Your task to perform on an android device: change the clock display to show seconds Image 0: 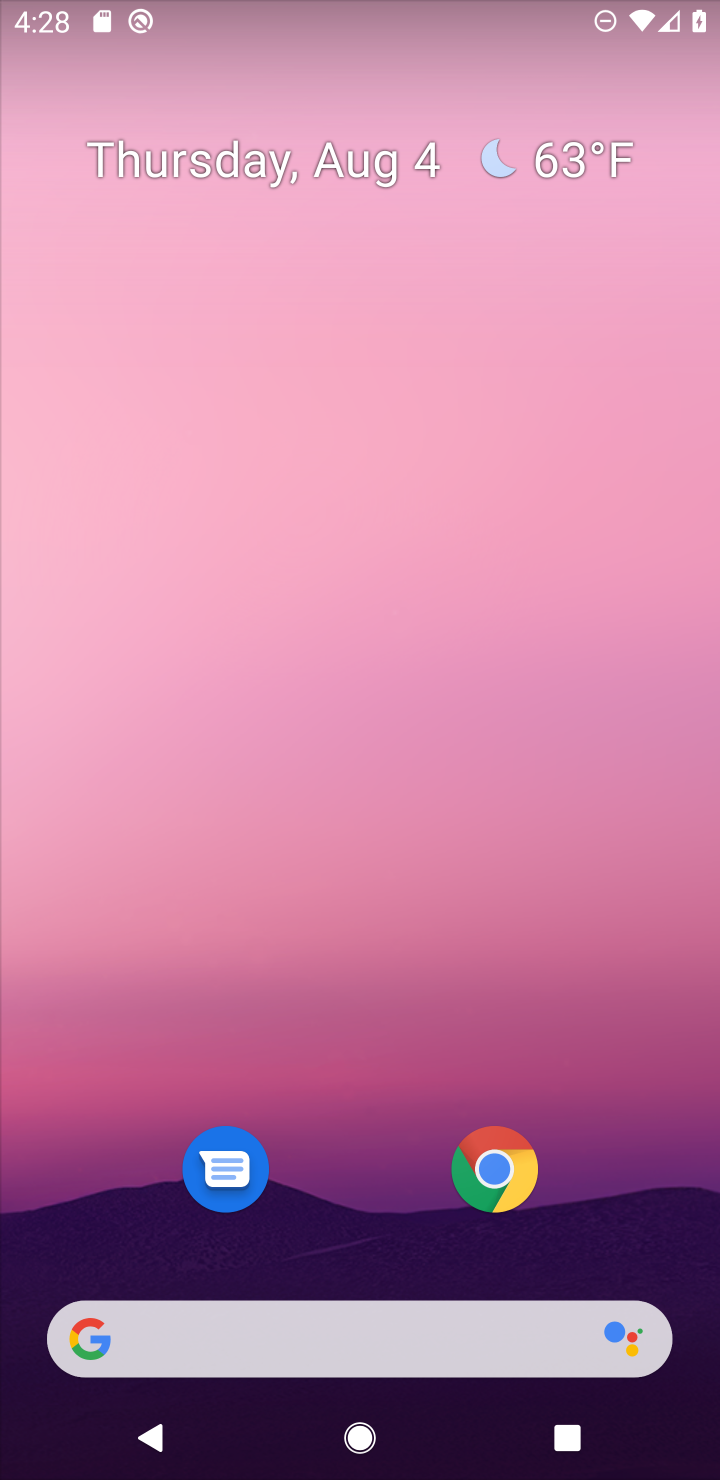
Step 0: drag from (348, 1258) to (271, 262)
Your task to perform on an android device: change the clock display to show seconds Image 1: 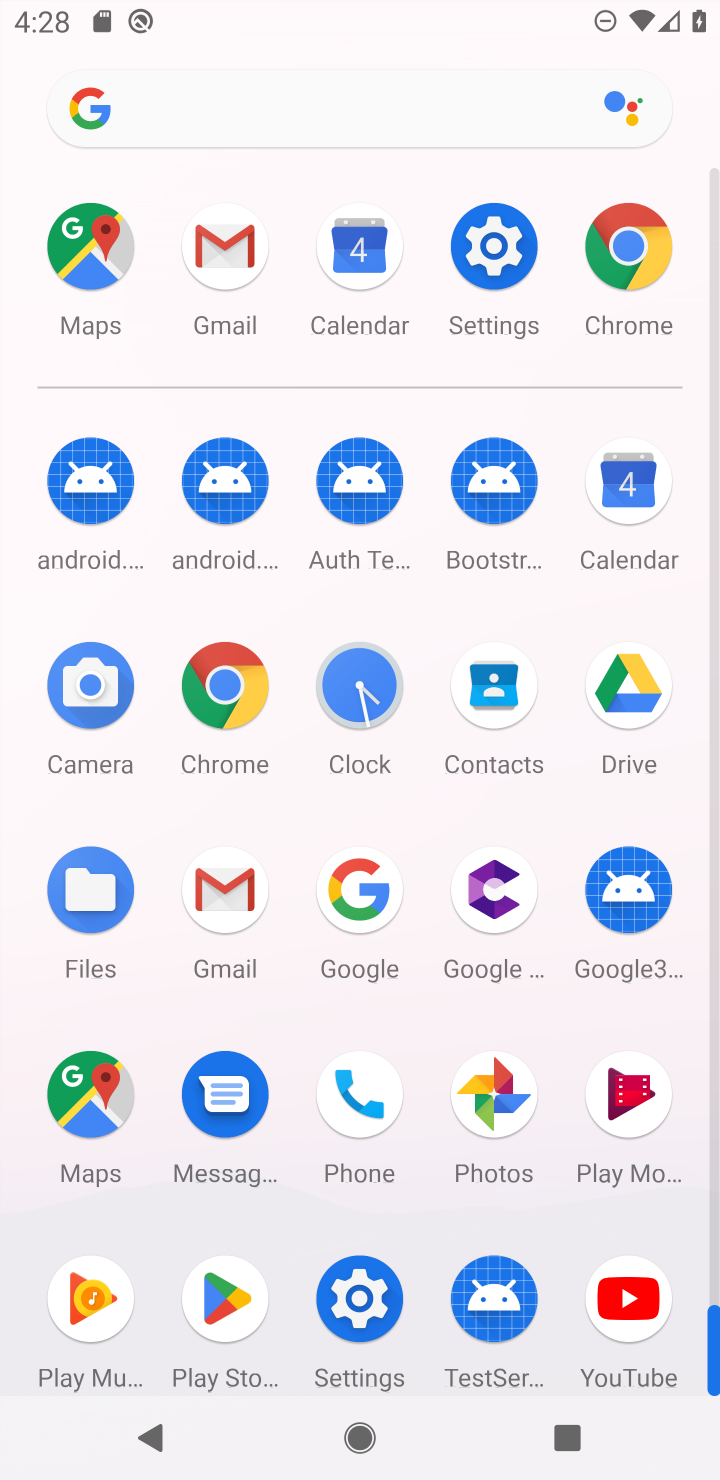
Step 1: click (351, 711)
Your task to perform on an android device: change the clock display to show seconds Image 2: 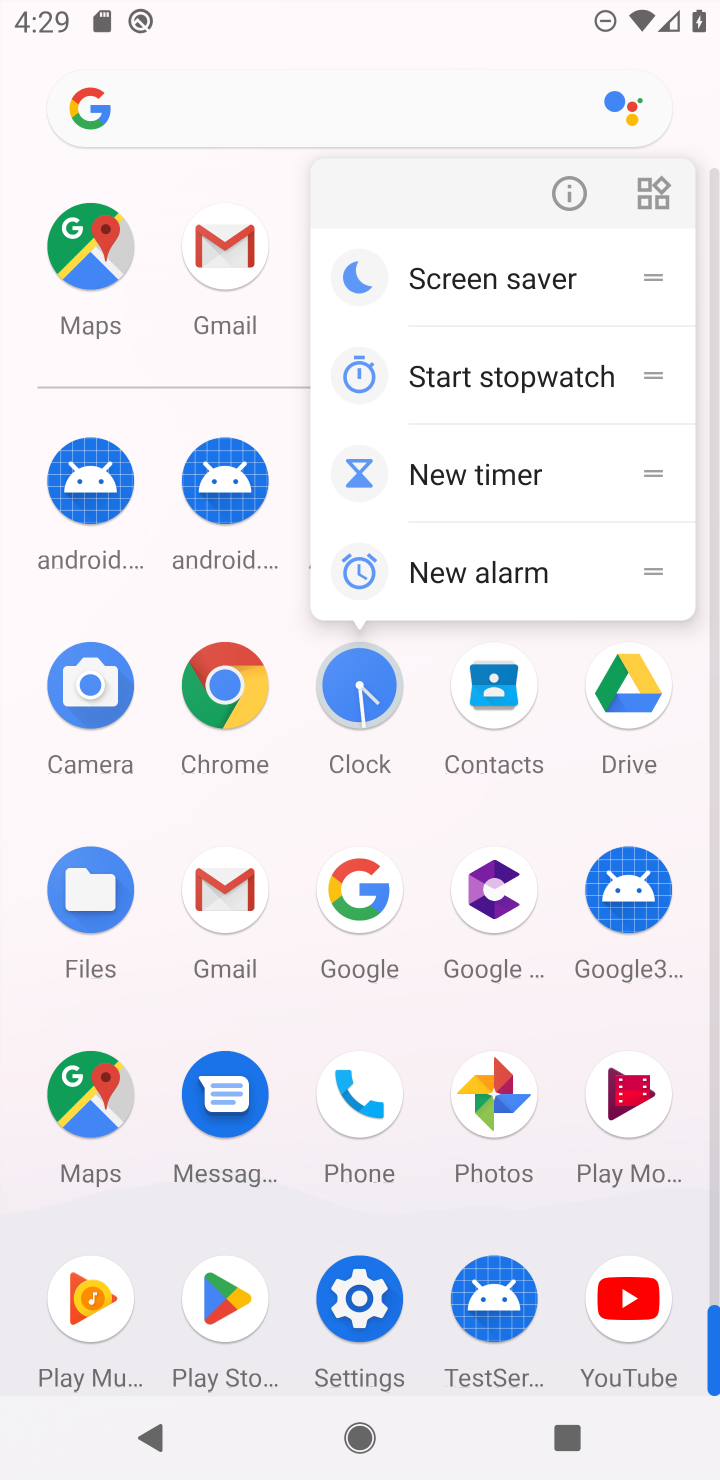
Step 2: click (351, 703)
Your task to perform on an android device: change the clock display to show seconds Image 3: 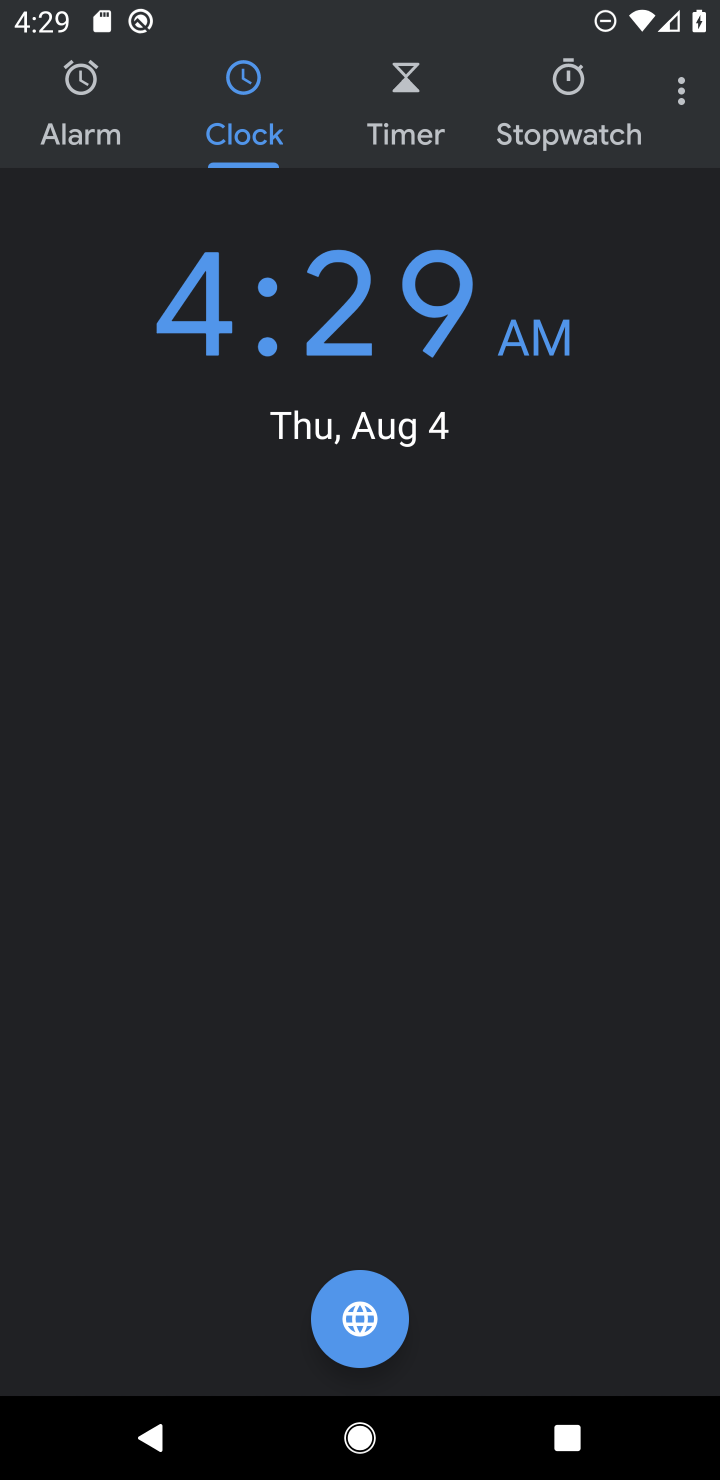
Step 3: click (676, 97)
Your task to perform on an android device: change the clock display to show seconds Image 4: 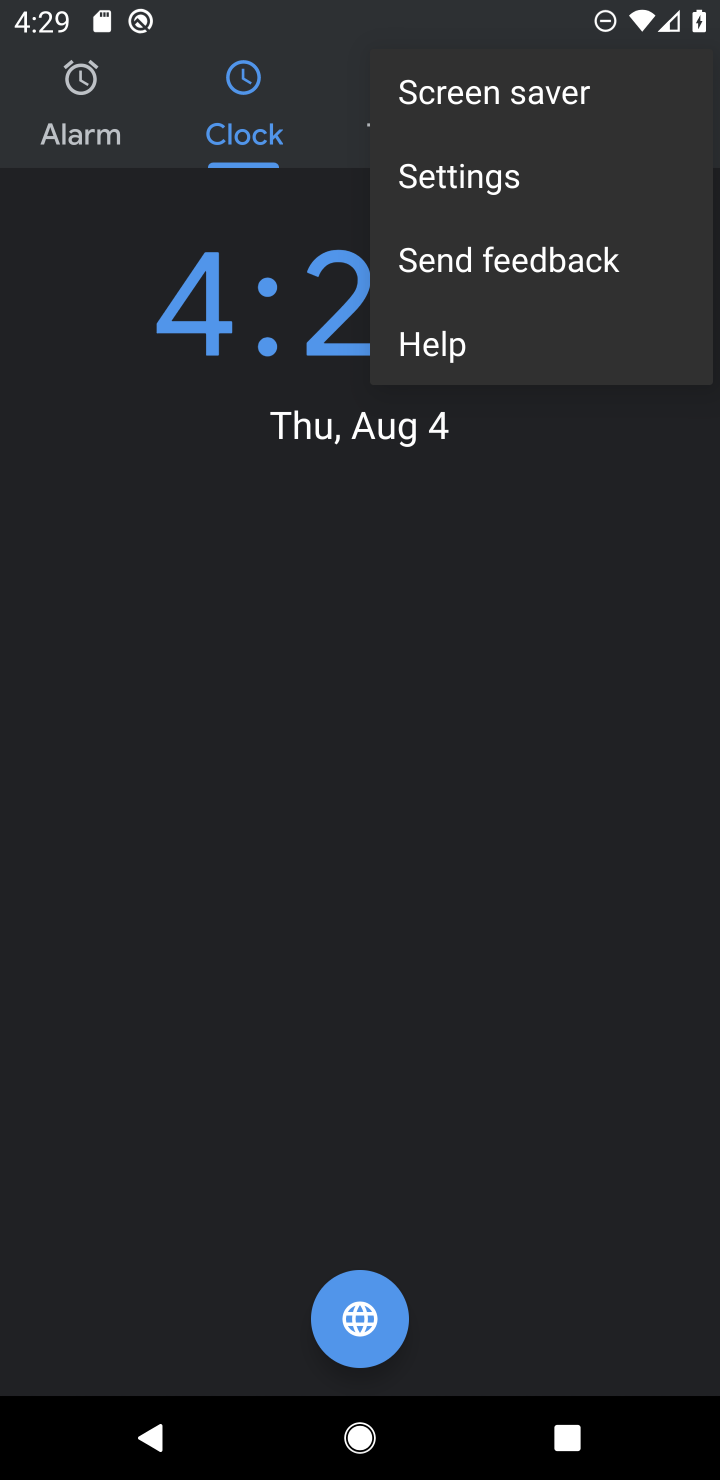
Step 4: click (468, 181)
Your task to perform on an android device: change the clock display to show seconds Image 5: 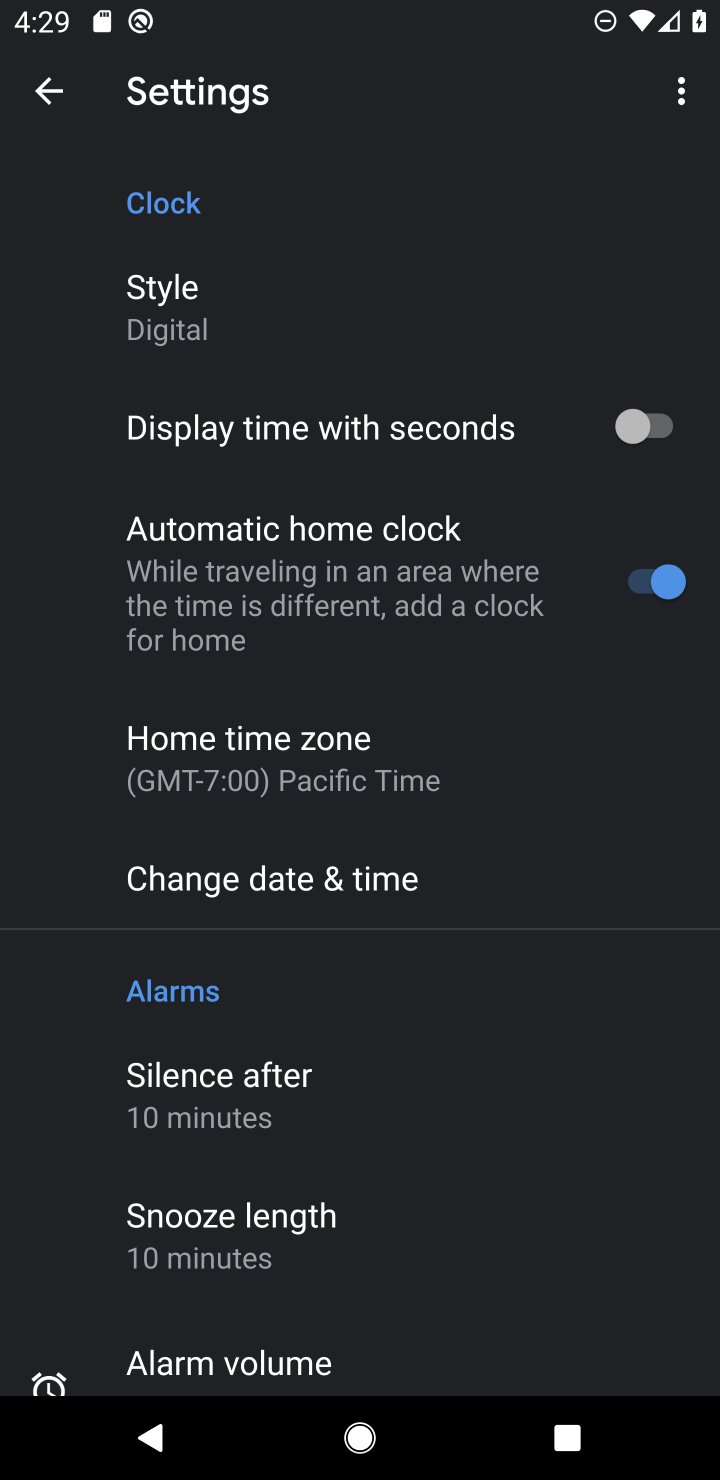
Step 5: click (217, 336)
Your task to perform on an android device: change the clock display to show seconds Image 6: 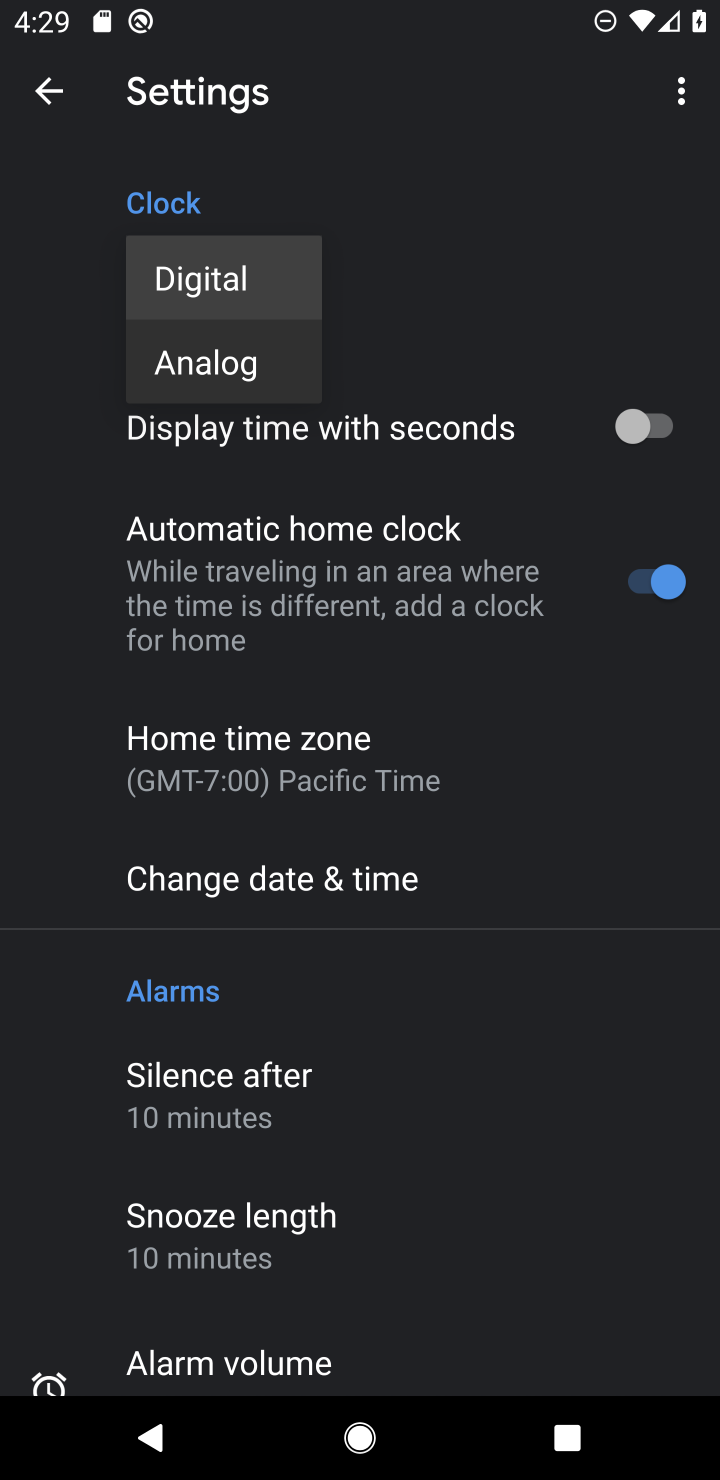
Step 6: click (219, 363)
Your task to perform on an android device: change the clock display to show seconds Image 7: 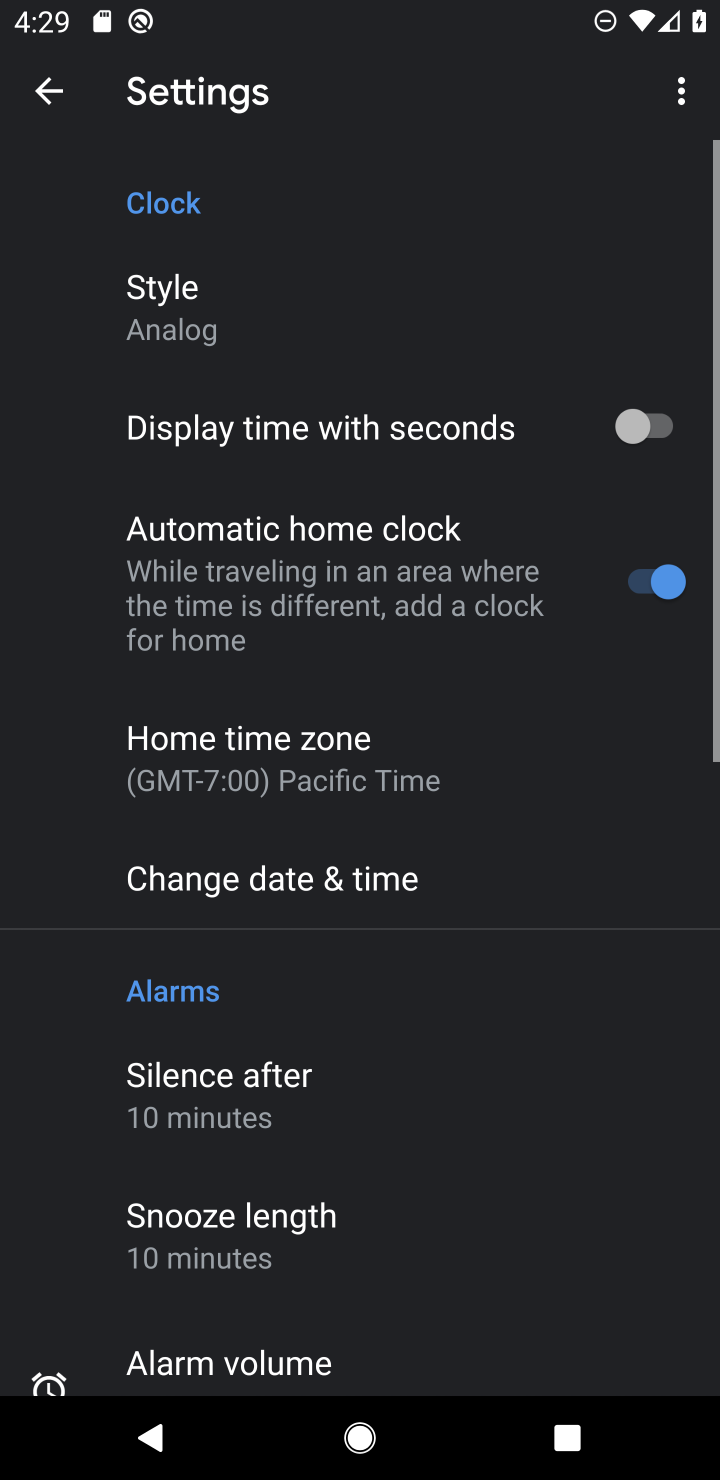
Step 7: click (689, 428)
Your task to perform on an android device: change the clock display to show seconds Image 8: 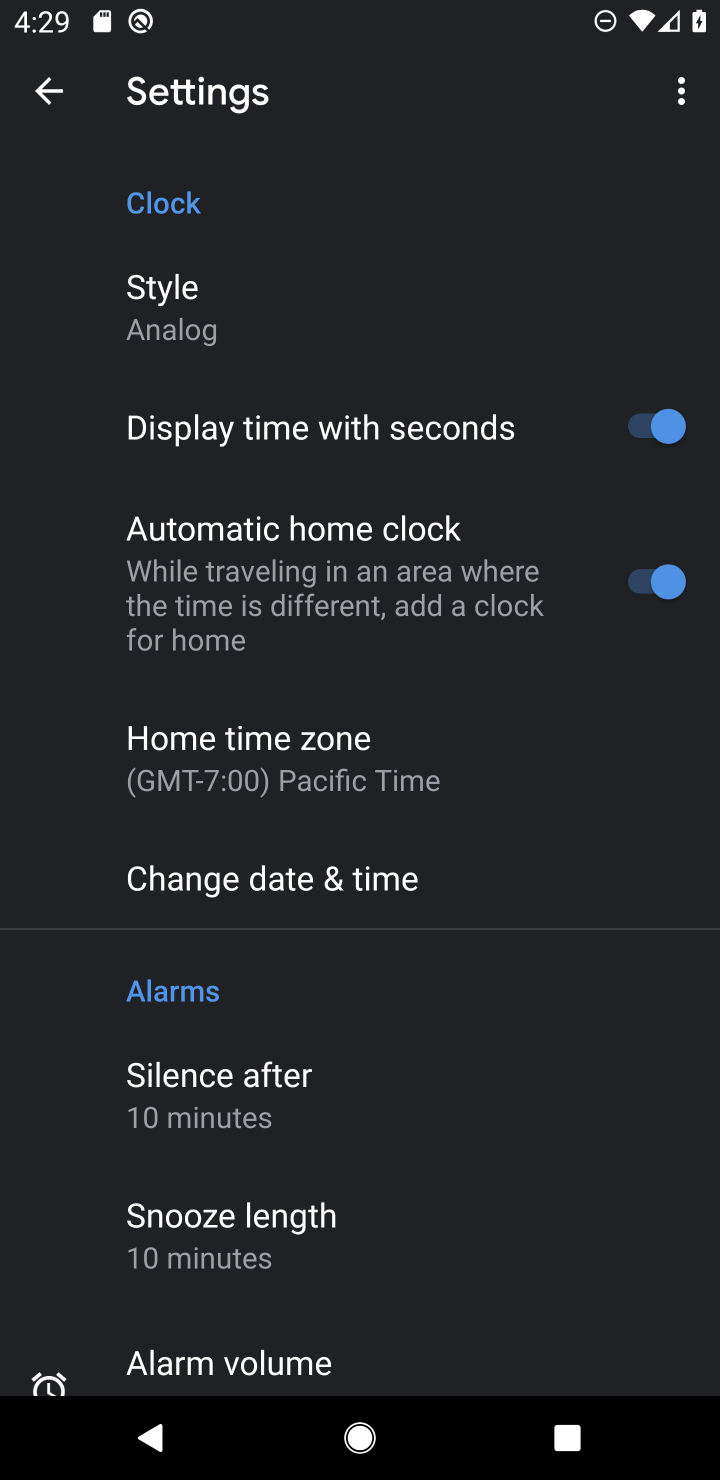
Step 8: task complete